Your task to perform on an android device: What is the news today? Image 0: 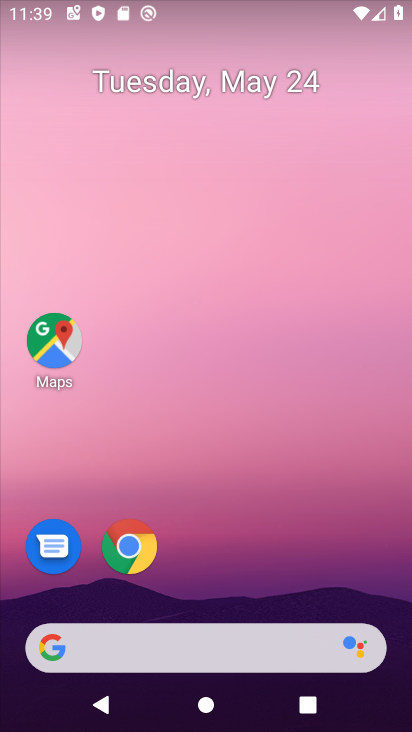
Step 0: drag from (254, 578) to (214, 250)
Your task to perform on an android device: What is the news today? Image 1: 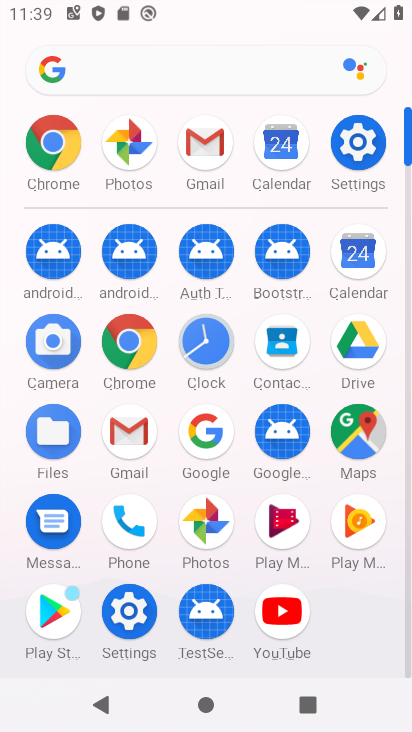
Step 1: click (60, 151)
Your task to perform on an android device: What is the news today? Image 2: 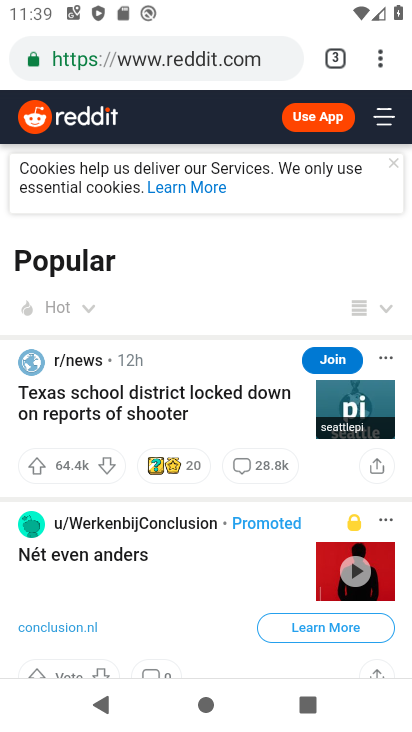
Step 2: click (117, 66)
Your task to perform on an android device: What is the news today? Image 3: 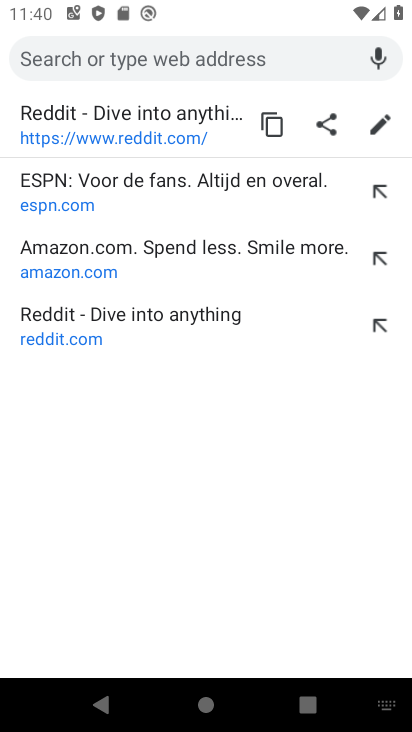
Step 3: click (200, 52)
Your task to perform on an android device: What is the news today? Image 4: 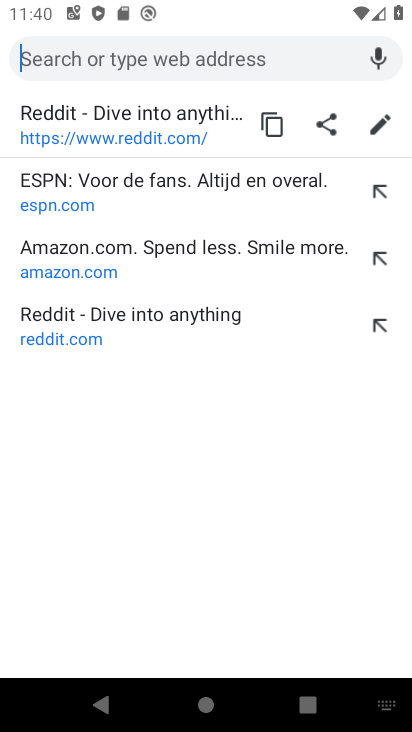
Step 4: type "What is the news today?"
Your task to perform on an android device: What is the news today? Image 5: 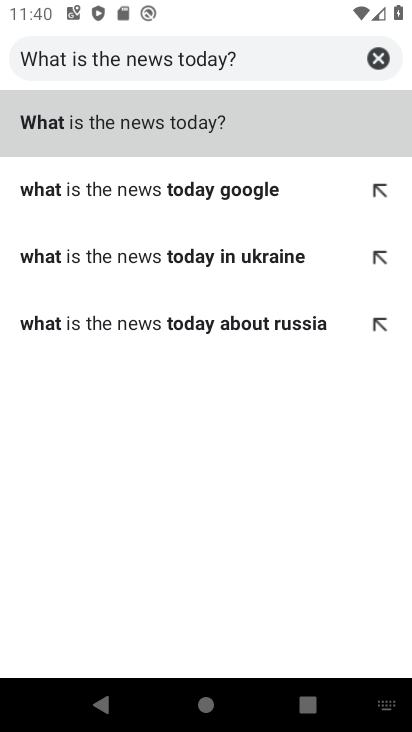
Step 5: click (214, 135)
Your task to perform on an android device: What is the news today? Image 6: 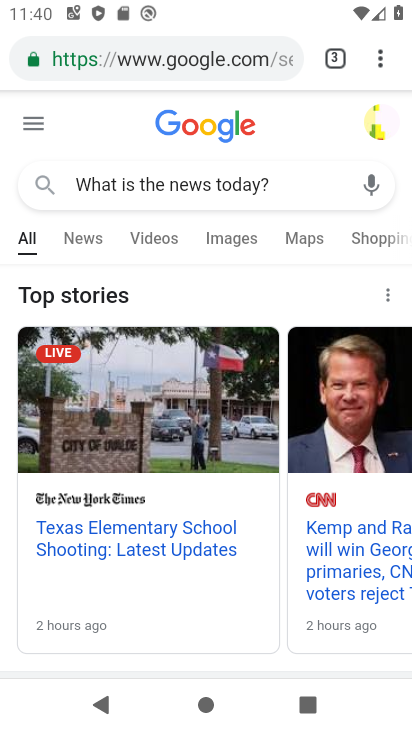
Step 6: task complete